Your task to perform on an android device: Open the phone app and click the voicemail tab. Image 0: 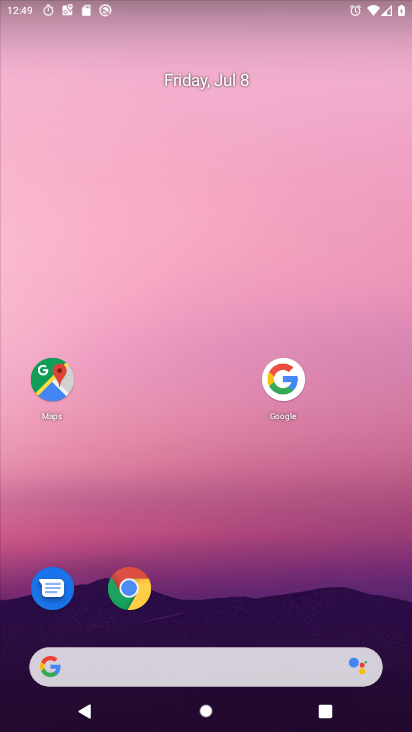
Step 0: press home button
Your task to perform on an android device: Open the phone app and click the voicemail tab. Image 1: 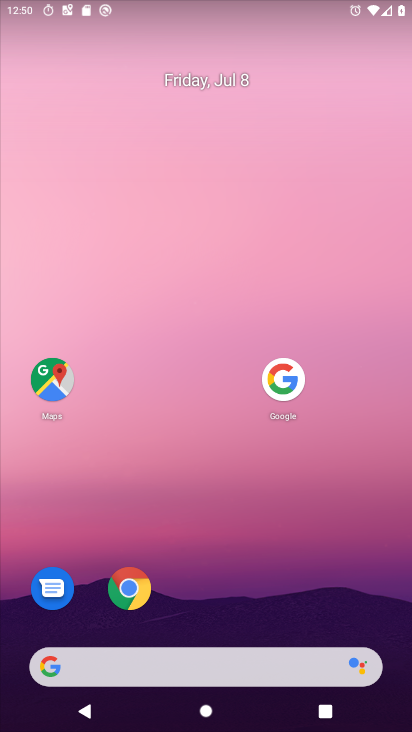
Step 1: drag from (253, 657) to (321, 163)
Your task to perform on an android device: Open the phone app and click the voicemail tab. Image 2: 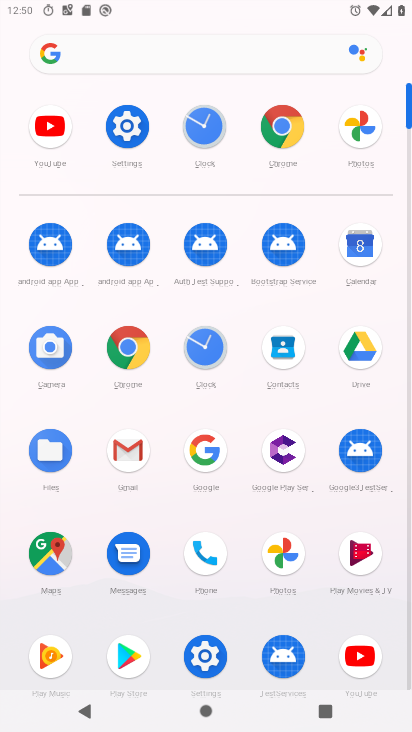
Step 2: click (206, 552)
Your task to perform on an android device: Open the phone app and click the voicemail tab. Image 3: 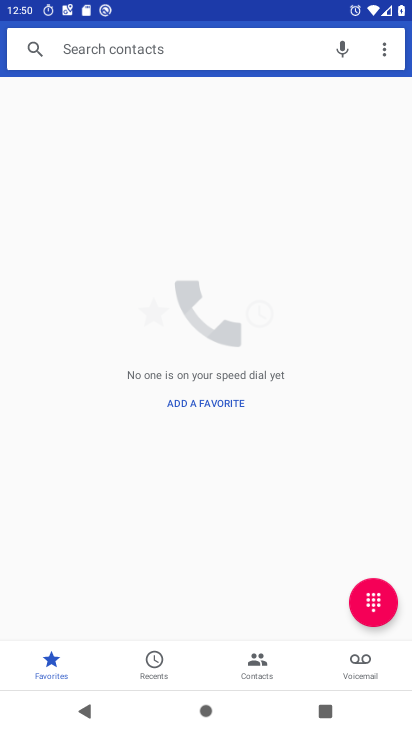
Step 3: click (361, 663)
Your task to perform on an android device: Open the phone app and click the voicemail tab. Image 4: 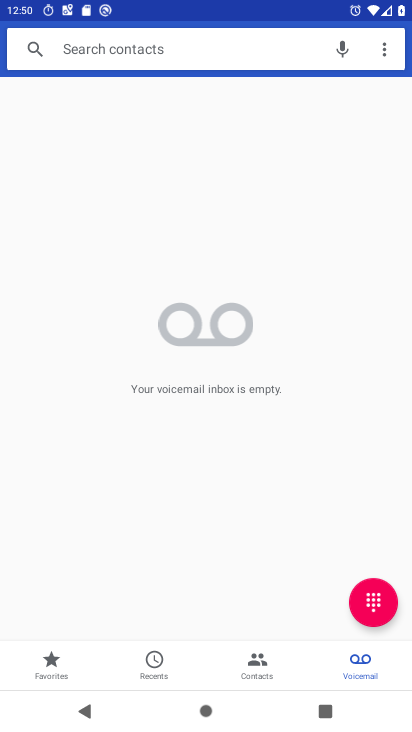
Step 4: task complete